Your task to perform on an android device: Open calendar and show me the fourth week of next month Image 0: 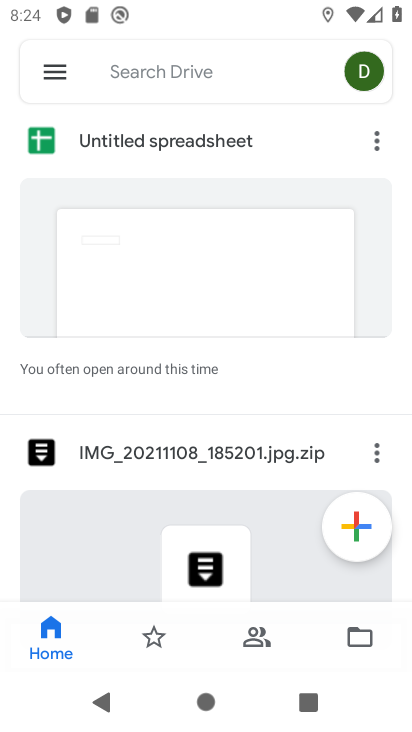
Step 0: press home button
Your task to perform on an android device: Open calendar and show me the fourth week of next month Image 1: 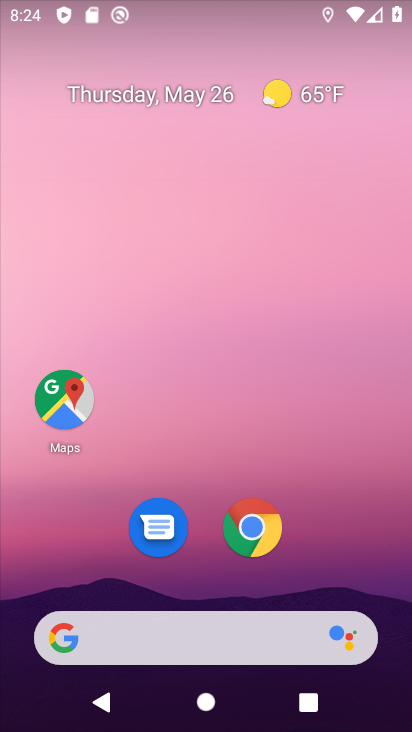
Step 1: drag from (321, 554) to (337, 120)
Your task to perform on an android device: Open calendar and show me the fourth week of next month Image 2: 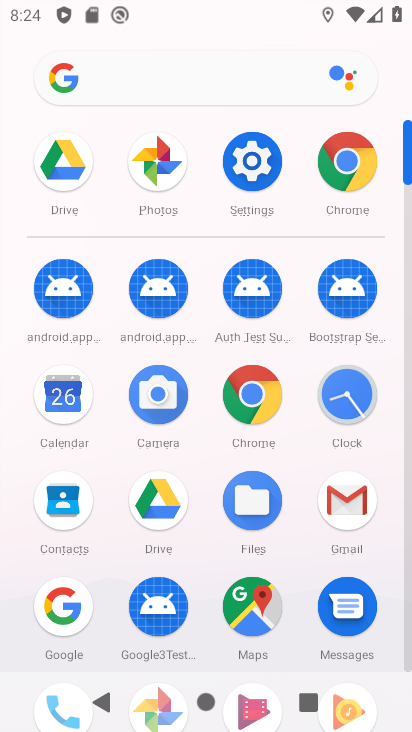
Step 2: click (48, 417)
Your task to perform on an android device: Open calendar and show me the fourth week of next month Image 3: 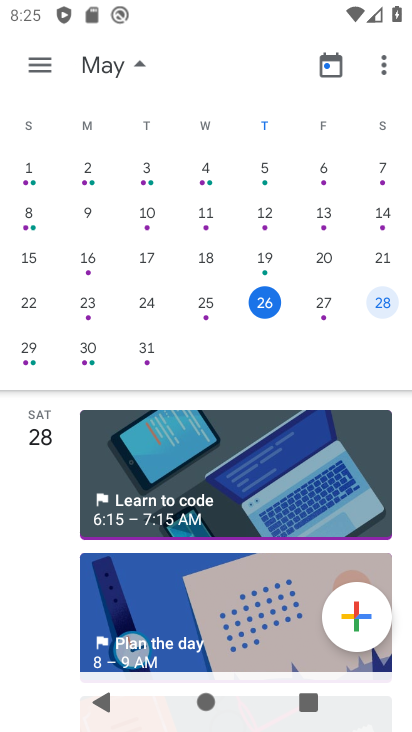
Step 3: drag from (348, 246) to (18, 311)
Your task to perform on an android device: Open calendar and show me the fourth week of next month Image 4: 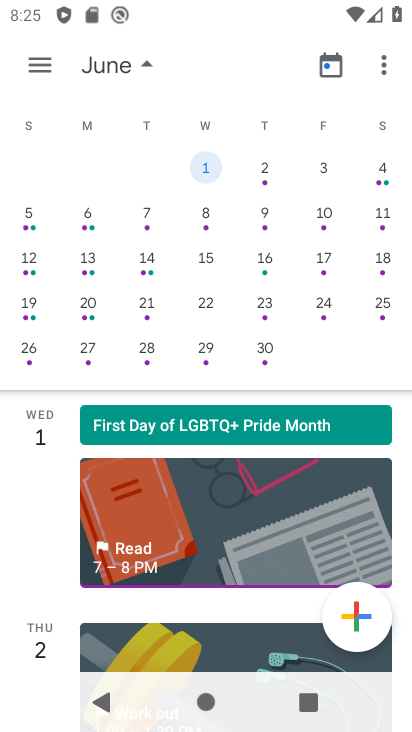
Step 4: click (154, 353)
Your task to perform on an android device: Open calendar and show me the fourth week of next month Image 5: 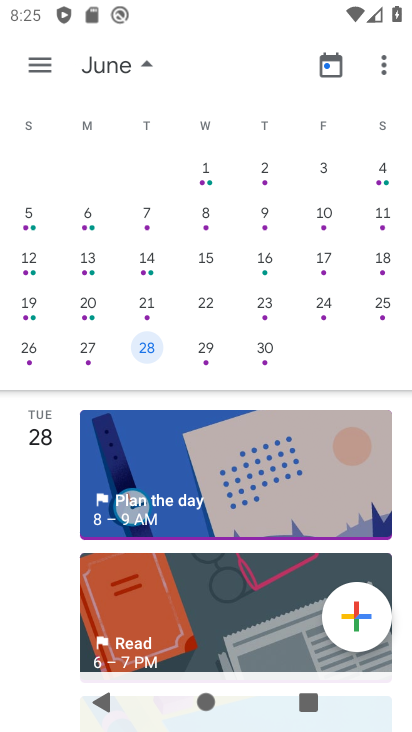
Step 5: task complete